Your task to perform on an android device: Set the phone to "Do not disturb". Image 0: 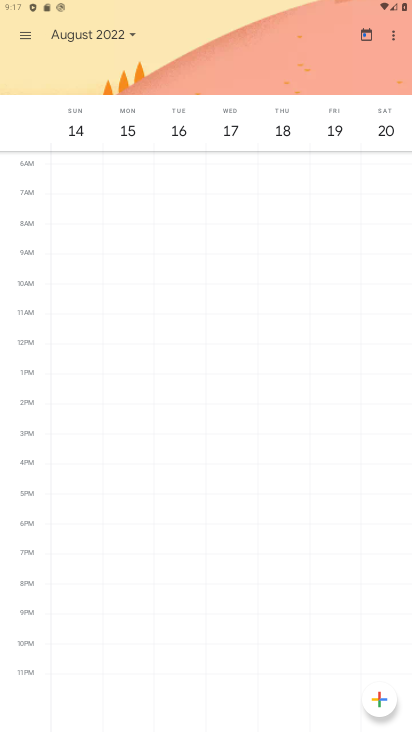
Step 0: drag from (370, 646) to (355, 579)
Your task to perform on an android device: Set the phone to "Do not disturb". Image 1: 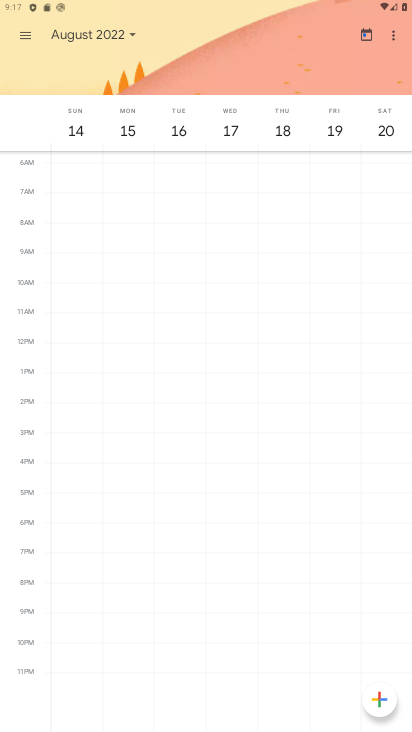
Step 1: press home button
Your task to perform on an android device: Set the phone to "Do not disturb". Image 2: 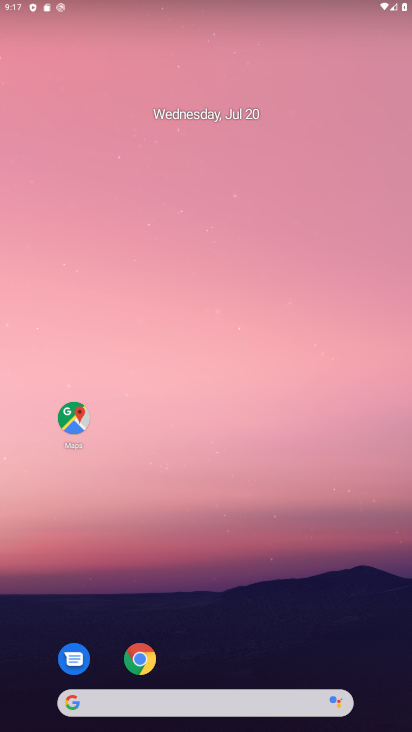
Step 2: click (285, 105)
Your task to perform on an android device: Set the phone to "Do not disturb". Image 3: 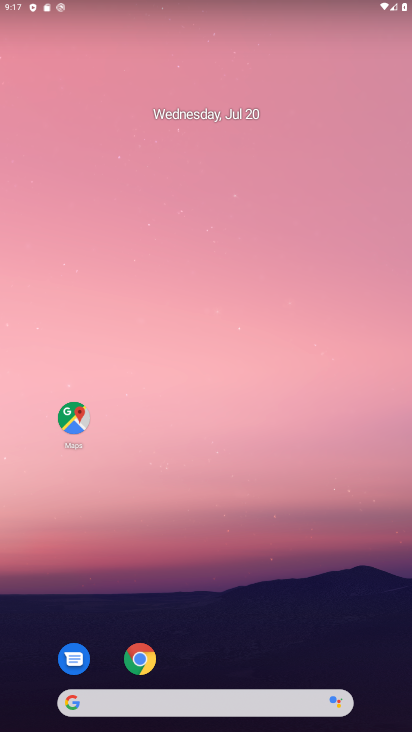
Step 3: drag from (254, 604) to (147, 35)
Your task to perform on an android device: Set the phone to "Do not disturb". Image 4: 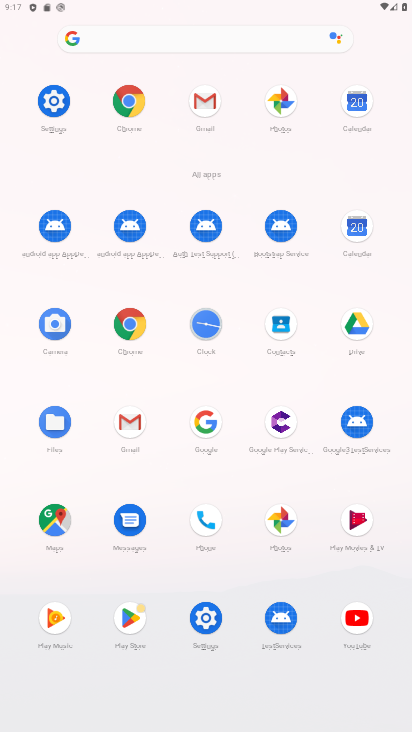
Step 4: click (52, 104)
Your task to perform on an android device: Set the phone to "Do not disturb". Image 5: 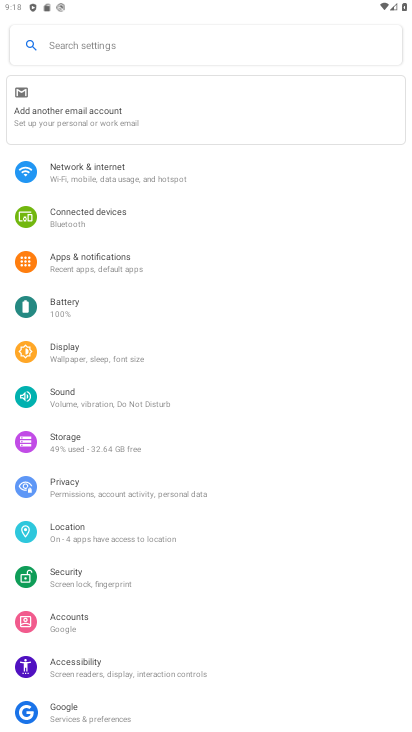
Step 5: drag from (216, 3) to (241, 430)
Your task to perform on an android device: Set the phone to "Do not disturb". Image 6: 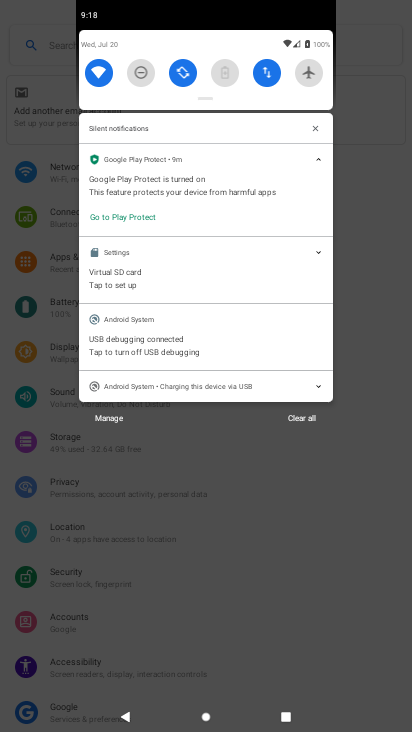
Step 6: click (144, 75)
Your task to perform on an android device: Set the phone to "Do not disturb". Image 7: 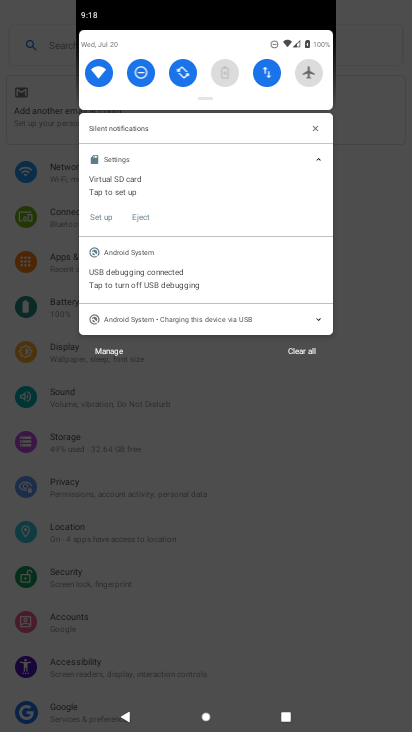
Step 7: task complete